Your task to perform on an android device: Go to Maps Image 0: 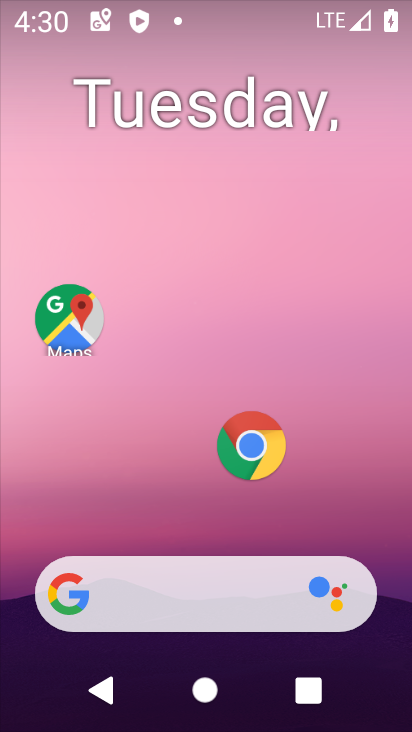
Step 0: click (78, 323)
Your task to perform on an android device: Go to Maps Image 1: 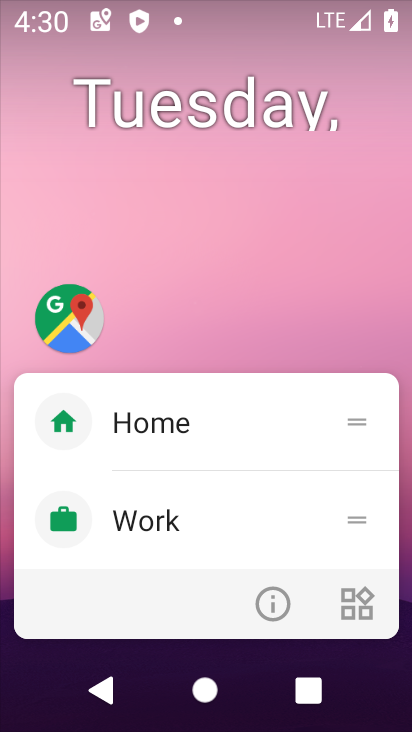
Step 1: click (84, 321)
Your task to perform on an android device: Go to Maps Image 2: 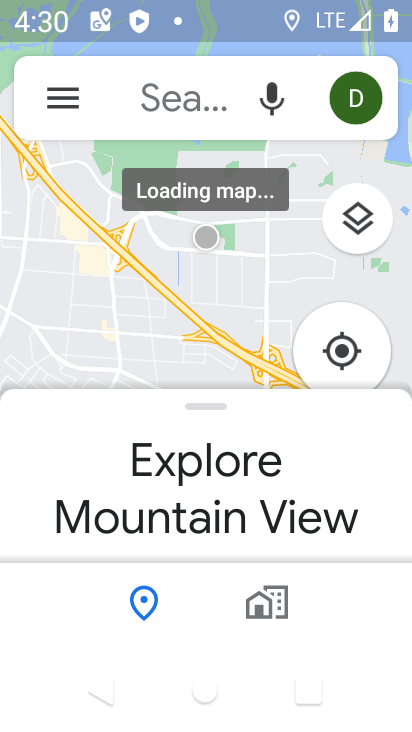
Step 2: task complete